Your task to perform on an android device: turn off javascript in the chrome app Image 0: 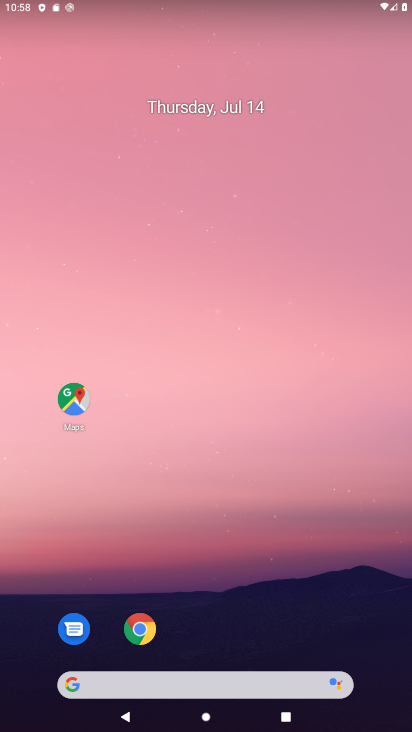
Step 0: click (148, 629)
Your task to perform on an android device: turn off javascript in the chrome app Image 1: 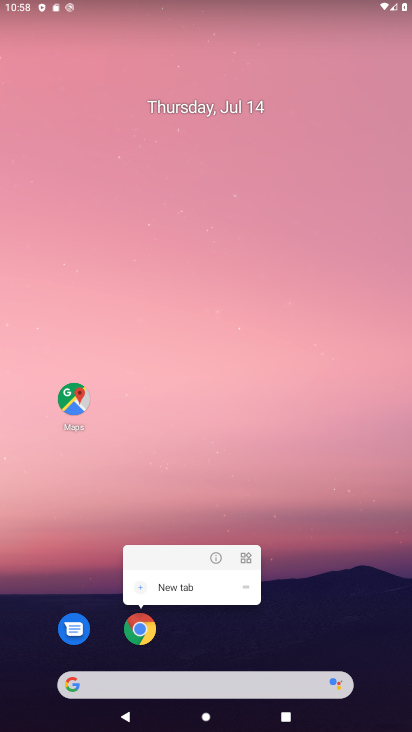
Step 1: click (142, 622)
Your task to perform on an android device: turn off javascript in the chrome app Image 2: 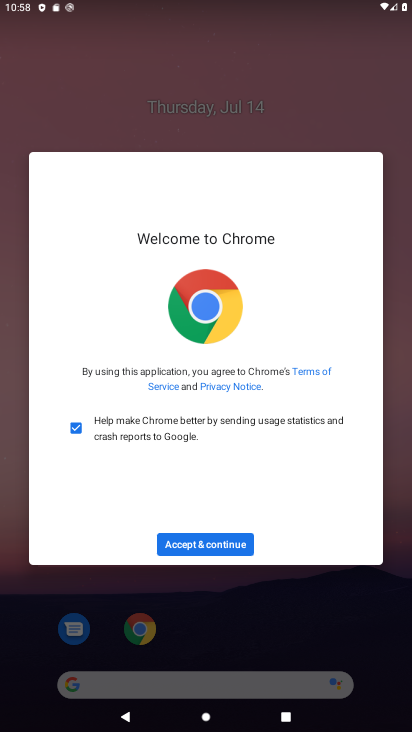
Step 2: click (202, 543)
Your task to perform on an android device: turn off javascript in the chrome app Image 3: 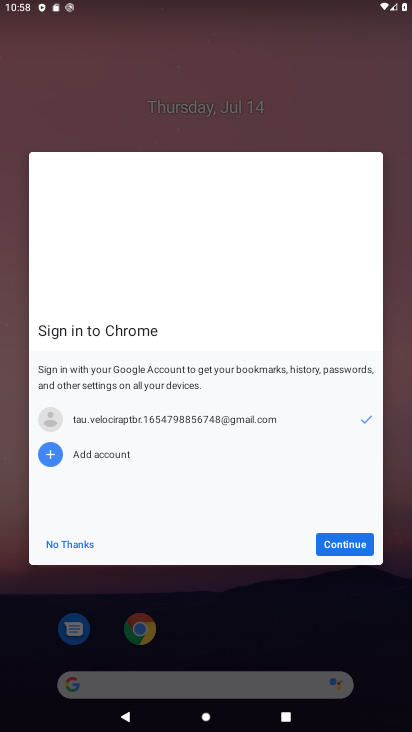
Step 3: click (364, 546)
Your task to perform on an android device: turn off javascript in the chrome app Image 4: 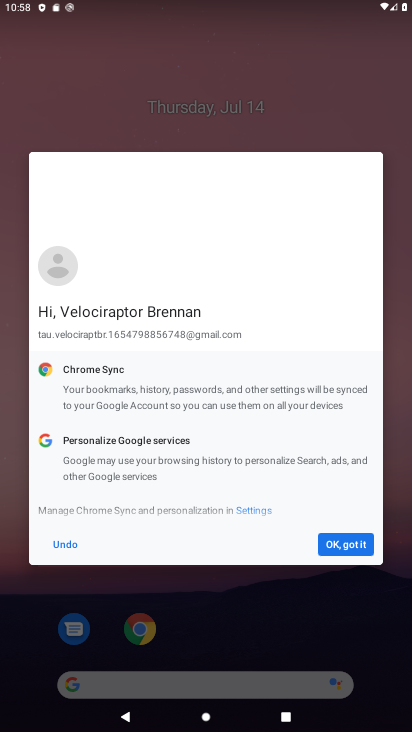
Step 4: click (347, 539)
Your task to perform on an android device: turn off javascript in the chrome app Image 5: 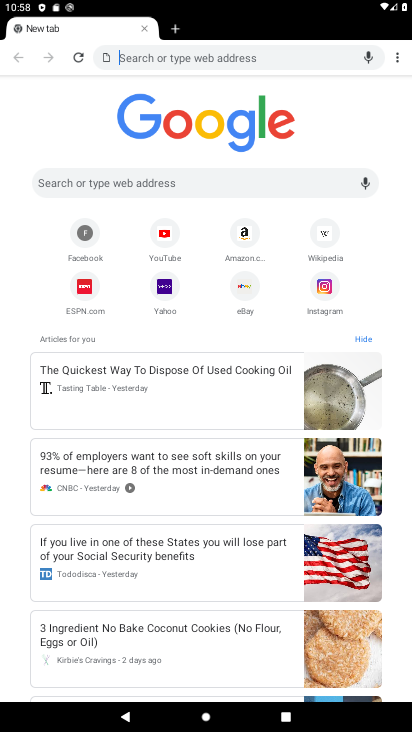
Step 5: click (399, 57)
Your task to perform on an android device: turn off javascript in the chrome app Image 6: 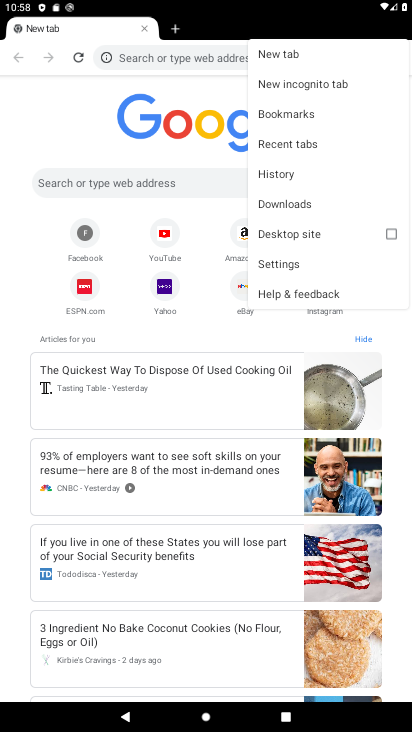
Step 6: click (279, 261)
Your task to perform on an android device: turn off javascript in the chrome app Image 7: 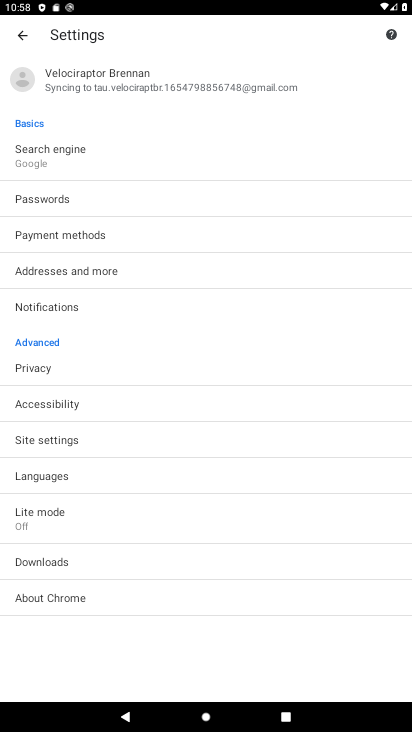
Step 7: click (73, 438)
Your task to perform on an android device: turn off javascript in the chrome app Image 8: 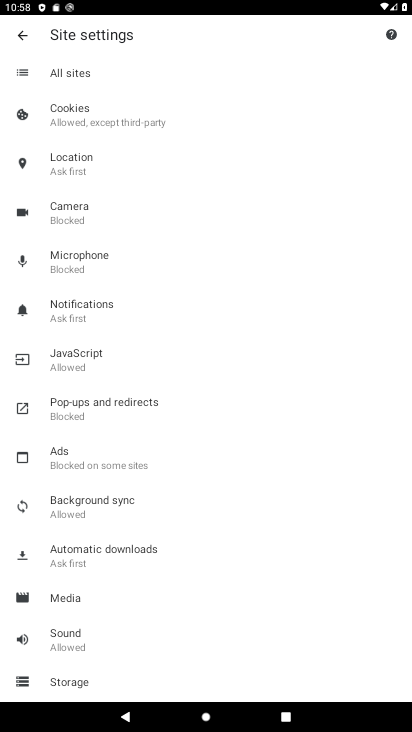
Step 8: click (97, 364)
Your task to perform on an android device: turn off javascript in the chrome app Image 9: 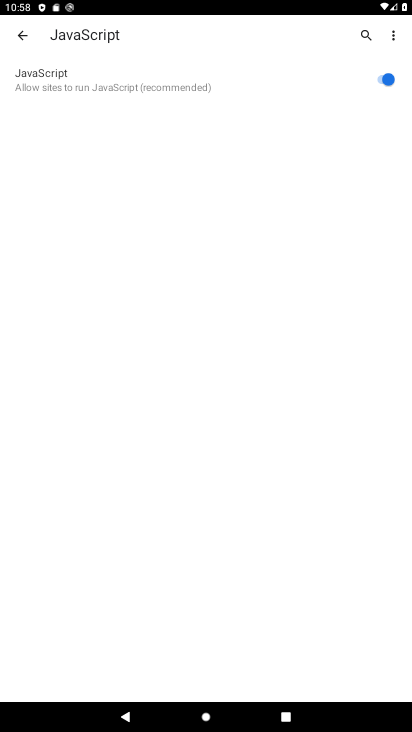
Step 9: click (373, 79)
Your task to perform on an android device: turn off javascript in the chrome app Image 10: 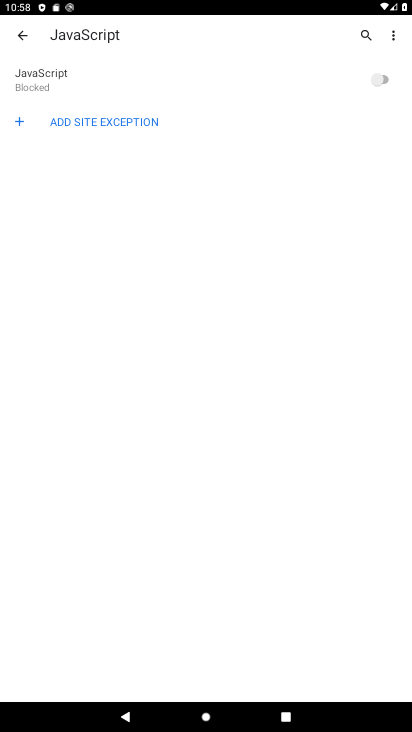
Step 10: task complete